Your task to perform on an android device: What's the weather going to be tomorrow? Image 0: 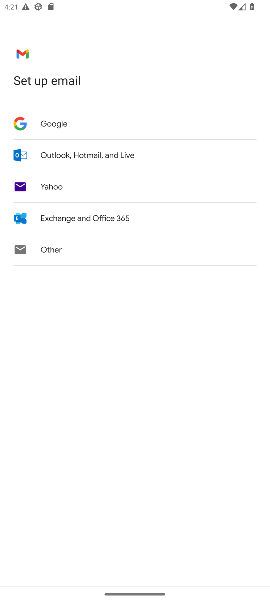
Step 0: press back button
Your task to perform on an android device: What's the weather going to be tomorrow? Image 1: 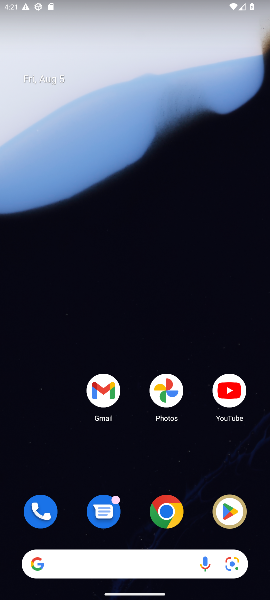
Step 1: click (133, 552)
Your task to perform on an android device: What's the weather going to be tomorrow? Image 2: 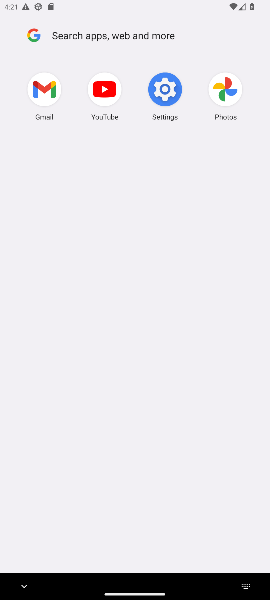
Step 2: press back button
Your task to perform on an android device: What's the weather going to be tomorrow? Image 3: 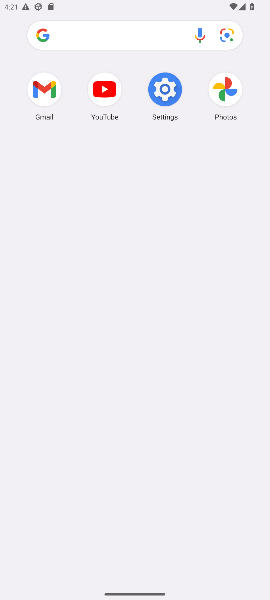
Step 3: type "weather"
Your task to perform on an android device: What's the weather going to be tomorrow? Image 4: 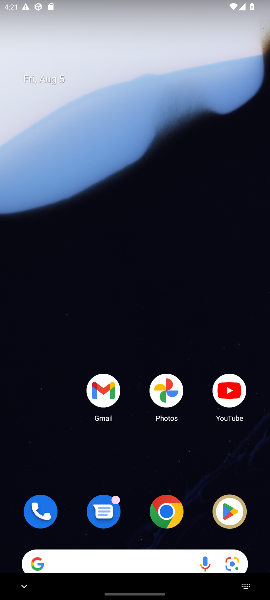
Step 4: type ""
Your task to perform on an android device: What's the weather going to be tomorrow? Image 5: 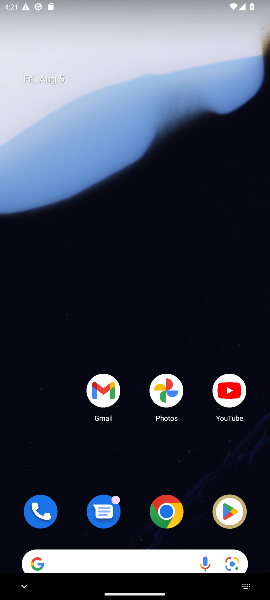
Step 5: drag from (144, 539) to (151, 21)
Your task to perform on an android device: What's the weather going to be tomorrow? Image 6: 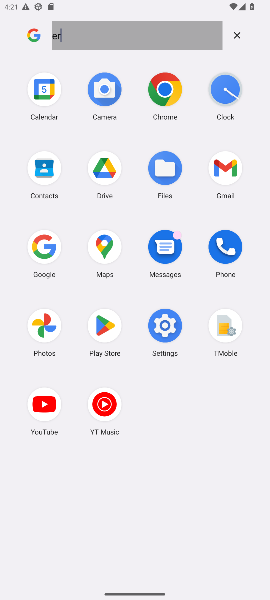
Step 6: click (42, 246)
Your task to perform on an android device: What's the weather going to be tomorrow? Image 7: 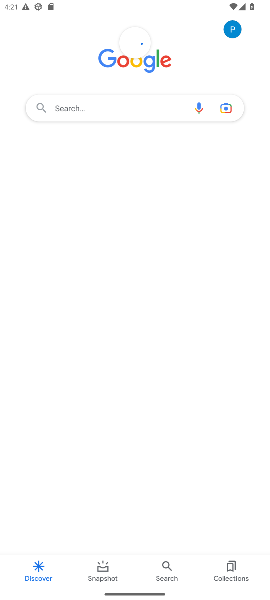
Step 7: click (72, 87)
Your task to perform on an android device: What's the weather going to be tomorrow? Image 8: 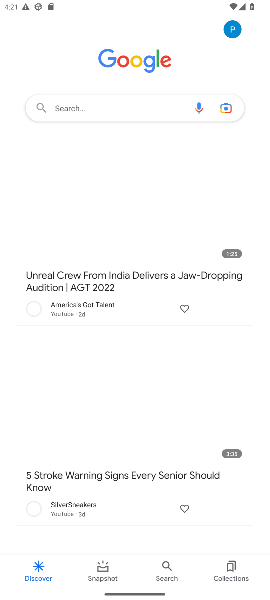
Step 8: click (75, 97)
Your task to perform on an android device: What's the weather going to be tomorrow? Image 9: 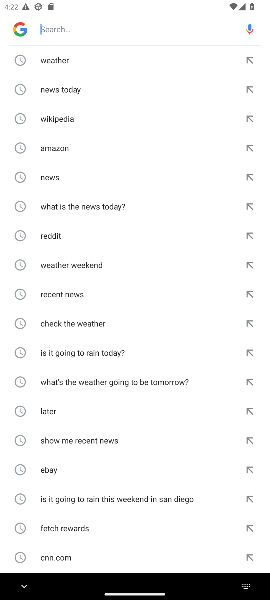
Step 9: click (56, 62)
Your task to perform on an android device: What's the weather going to be tomorrow? Image 10: 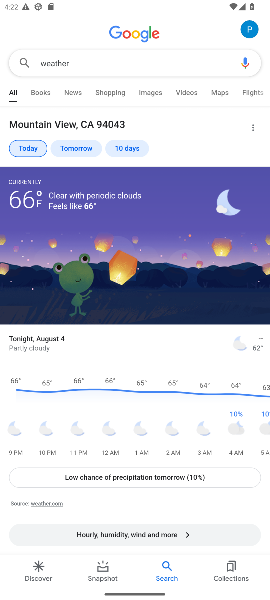
Step 10: task complete